Your task to perform on an android device: move a message to another label in the gmail app Image 0: 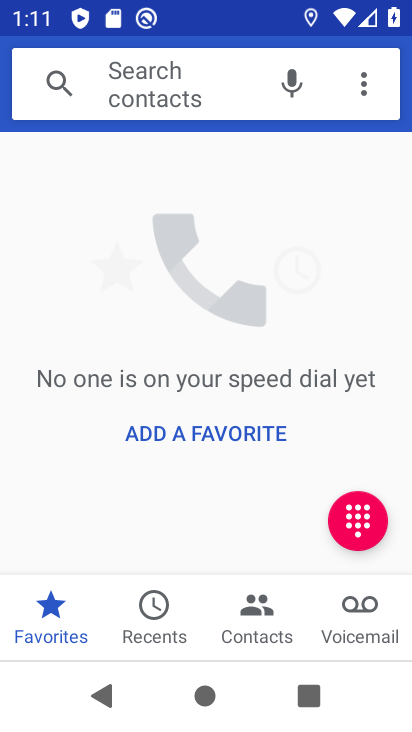
Step 0: press back button
Your task to perform on an android device: move a message to another label in the gmail app Image 1: 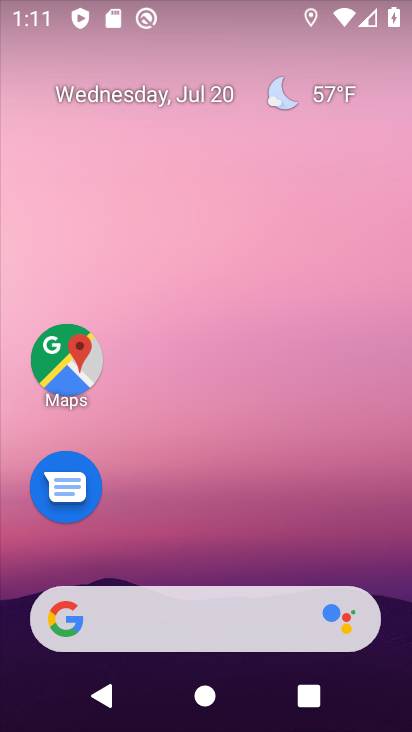
Step 1: drag from (182, 478) to (267, 0)
Your task to perform on an android device: move a message to another label in the gmail app Image 2: 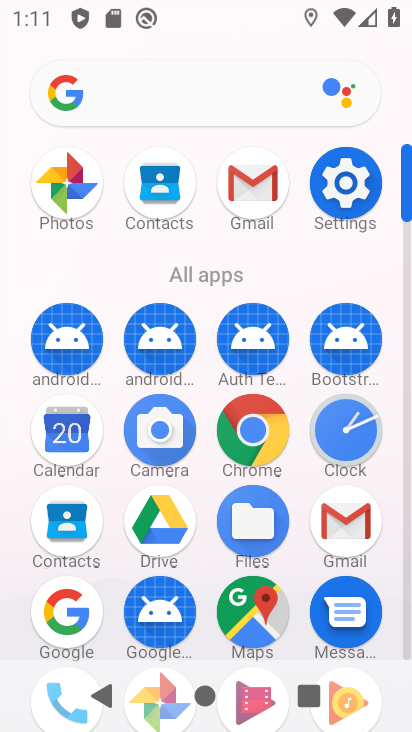
Step 2: click (255, 186)
Your task to perform on an android device: move a message to another label in the gmail app Image 3: 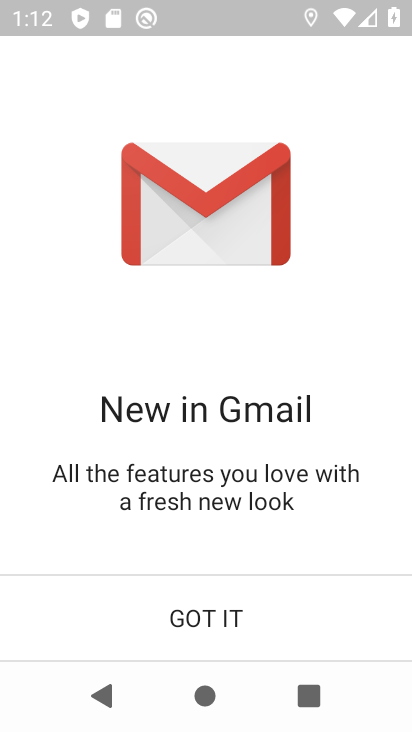
Step 3: click (198, 612)
Your task to perform on an android device: move a message to another label in the gmail app Image 4: 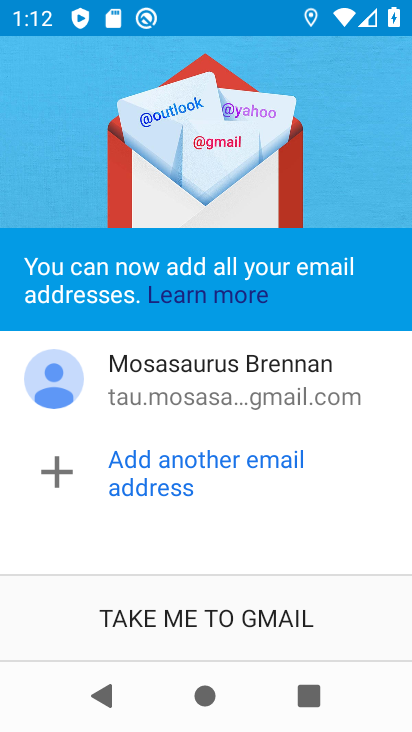
Step 4: click (219, 599)
Your task to perform on an android device: move a message to another label in the gmail app Image 5: 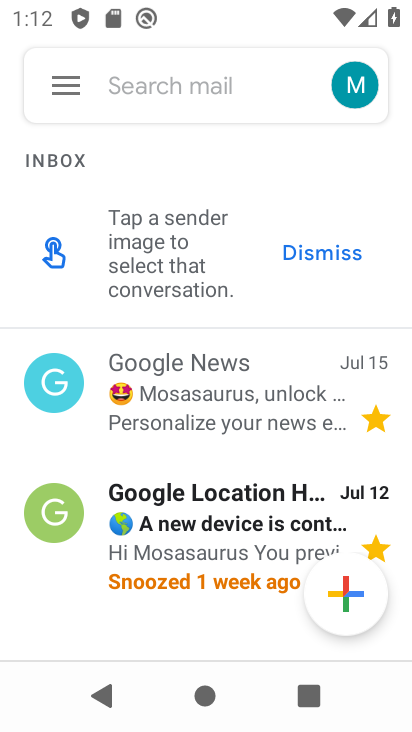
Step 5: click (177, 392)
Your task to perform on an android device: move a message to another label in the gmail app Image 6: 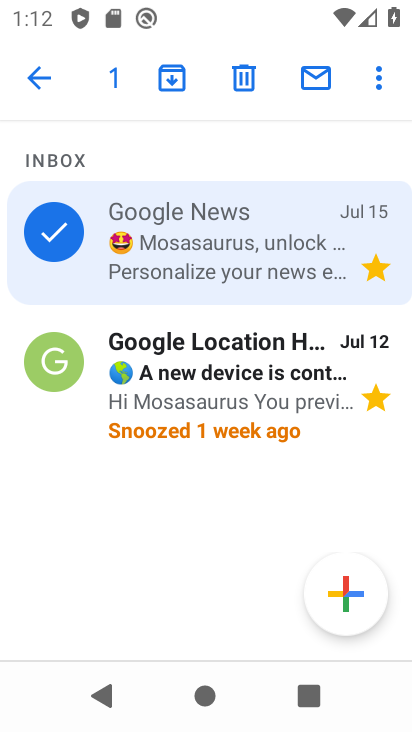
Step 6: click (373, 73)
Your task to perform on an android device: move a message to another label in the gmail app Image 7: 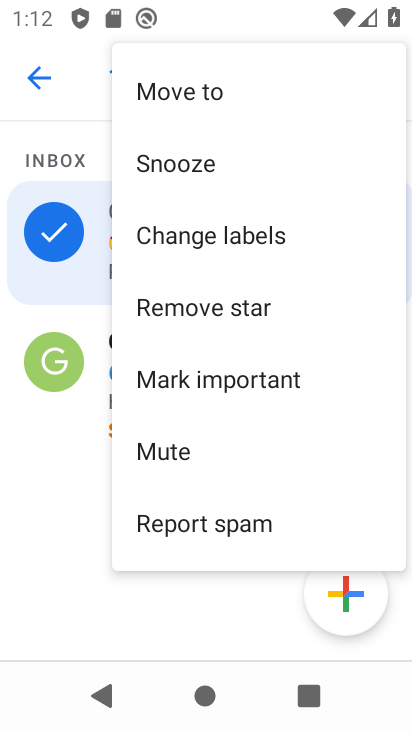
Step 7: click (171, 98)
Your task to perform on an android device: move a message to another label in the gmail app Image 8: 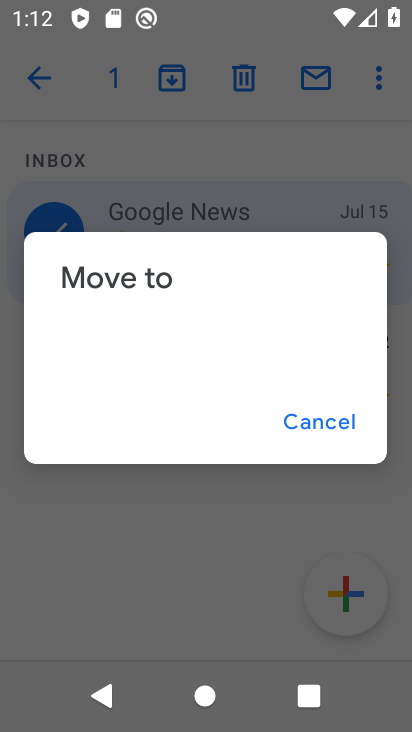
Step 8: click (314, 430)
Your task to perform on an android device: move a message to another label in the gmail app Image 9: 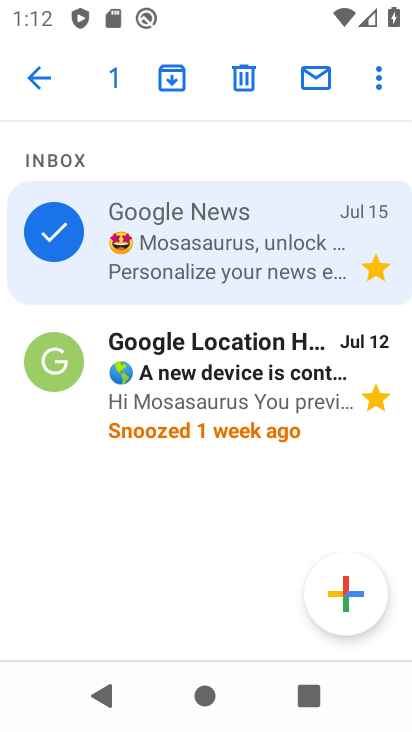
Step 9: task complete